Your task to perform on an android device: turn off location history Image 0: 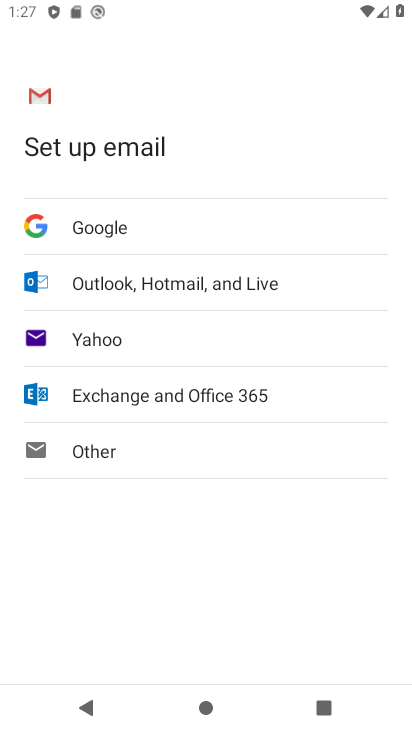
Step 0: press home button
Your task to perform on an android device: turn off location history Image 1: 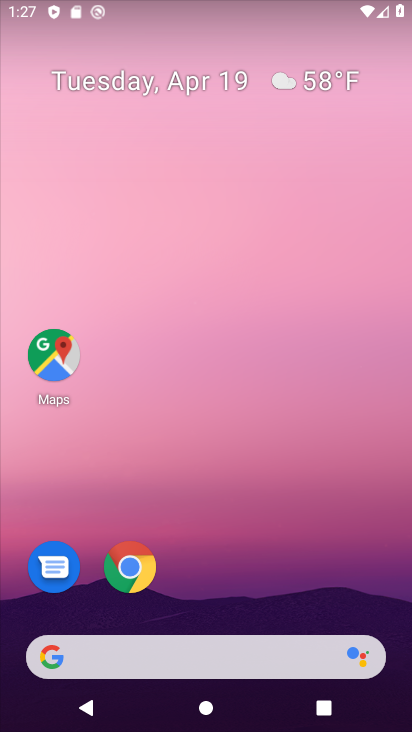
Step 1: click (57, 368)
Your task to perform on an android device: turn off location history Image 2: 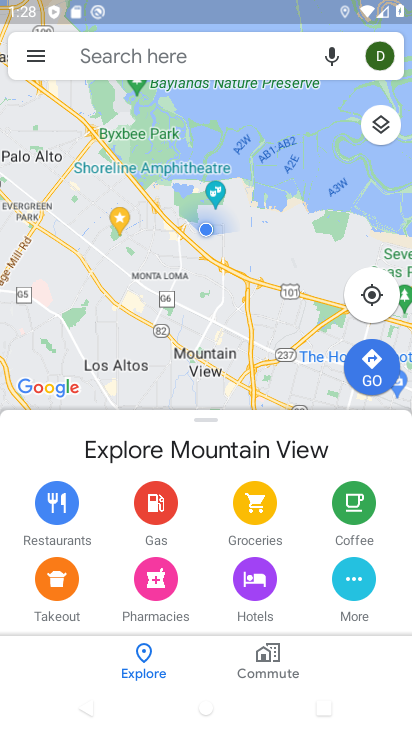
Step 2: click (33, 53)
Your task to perform on an android device: turn off location history Image 3: 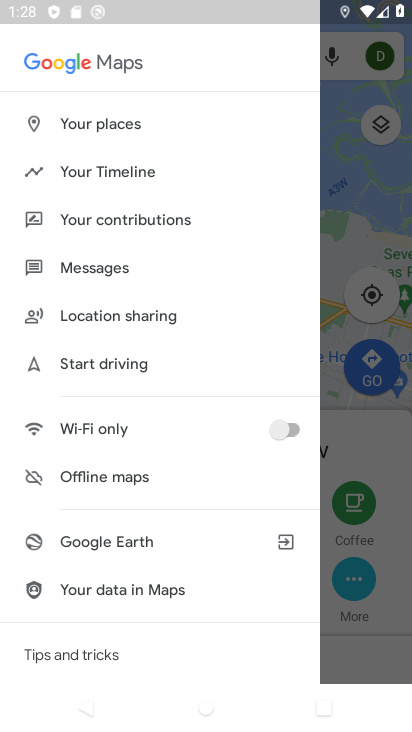
Step 3: drag from (204, 593) to (209, 204)
Your task to perform on an android device: turn off location history Image 4: 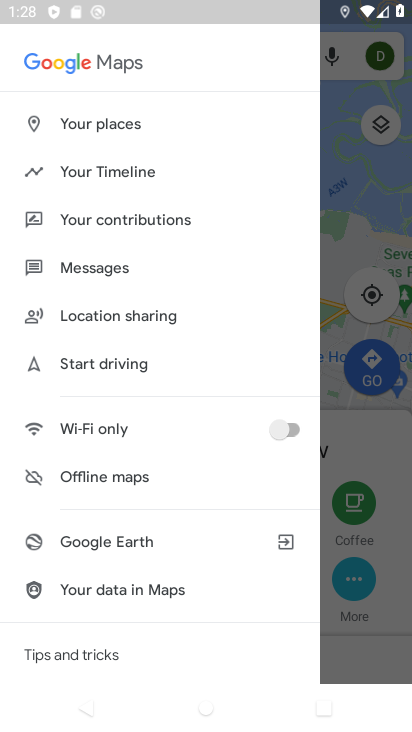
Step 4: drag from (211, 615) to (225, 127)
Your task to perform on an android device: turn off location history Image 5: 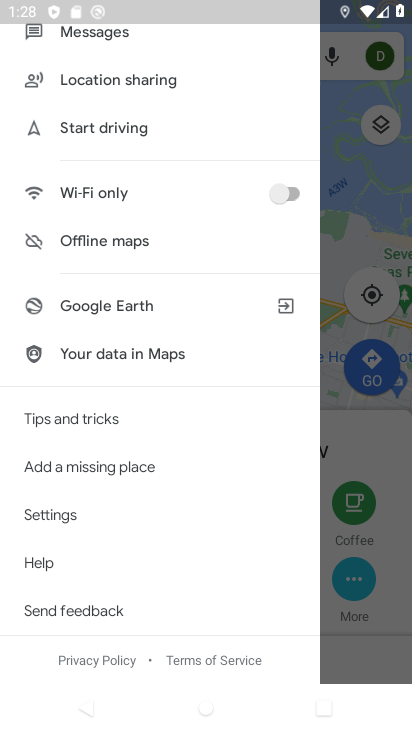
Step 5: click (51, 501)
Your task to perform on an android device: turn off location history Image 6: 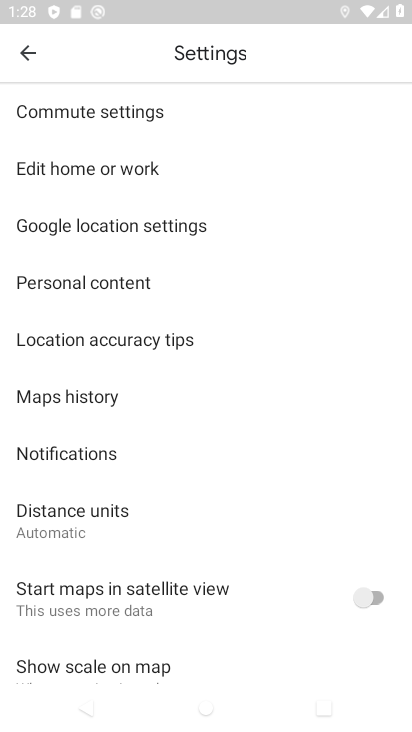
Step 6: click (65, 294)
Your task to perform on an android device: turn off location history Image 7: 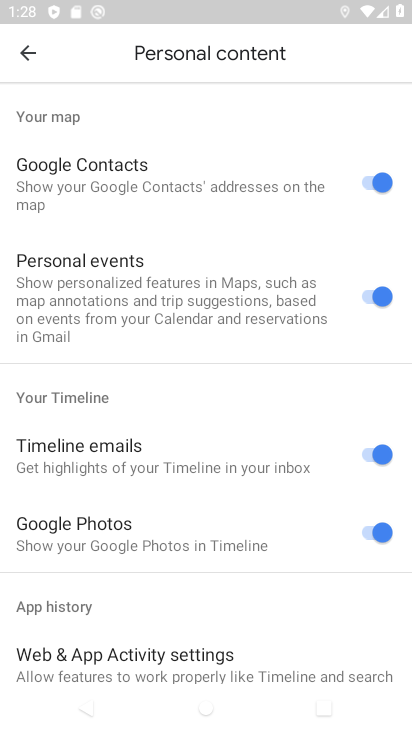
Step 7: task complete